Your task to perform on an android device: move a message to another label in the gmail app Image 0: 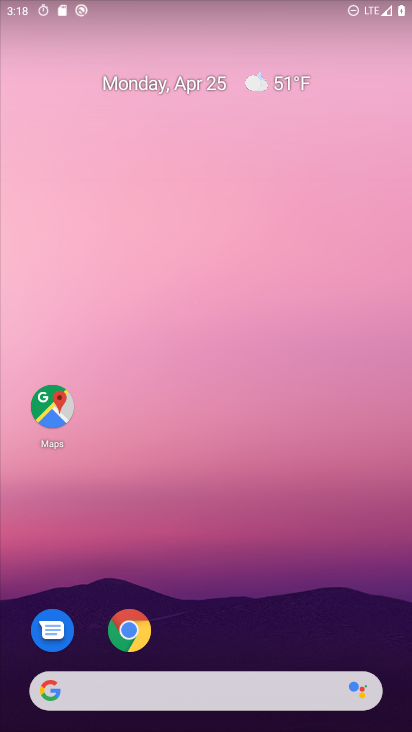
Step 0: drag from (165, 660) to (297, 181)
Your task to perform on an android device: move a message to another label in the gmail app Image 1: 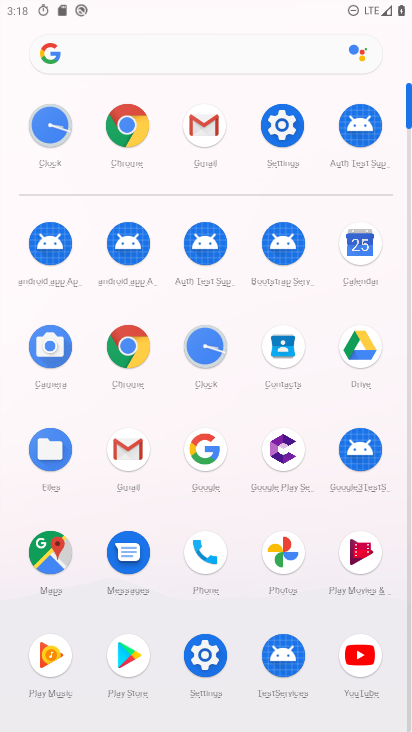
Step 1: click (122, 448)
Your task to perform on an android device: move a message to another label in the gmail app Image 2: 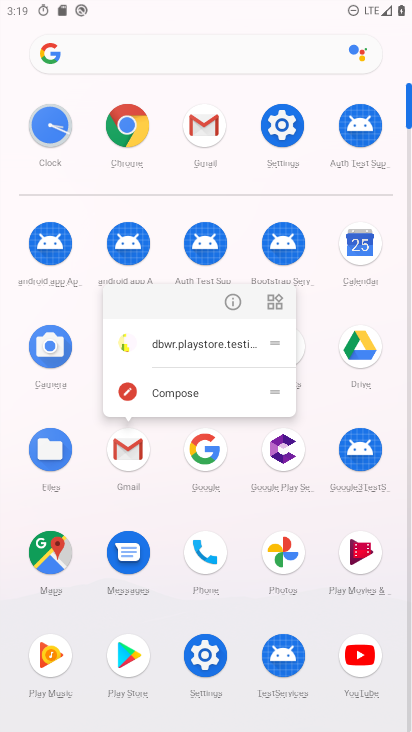
Step 2: click (228, 301)
Your task to perform on an android device: move a message to another label in the gmail app Image 3: 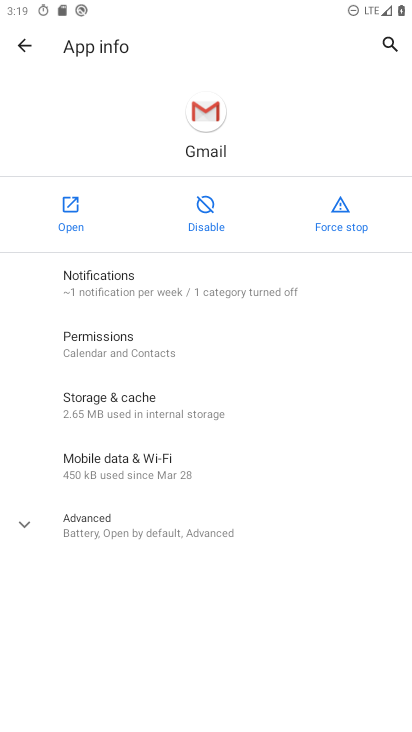
Step 3: click (67, 205)
Your task to perform on an android device: move a message to another label in the gmail app Image 4: 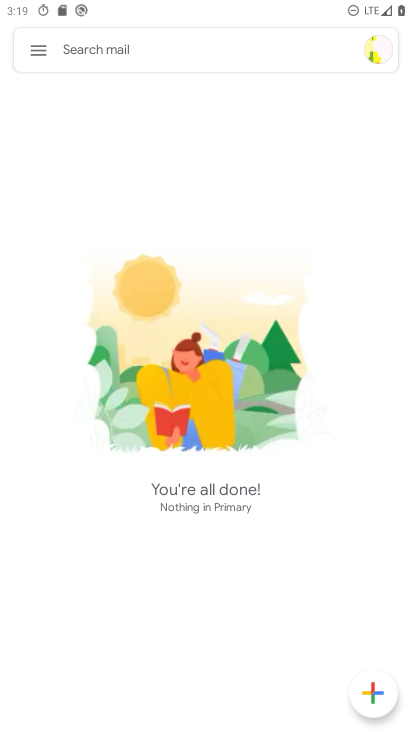
Step 4: drag from (219, 549) to (224, 285)
Your task to perform on an android device: move a message to another label in the gmail app Image 5: 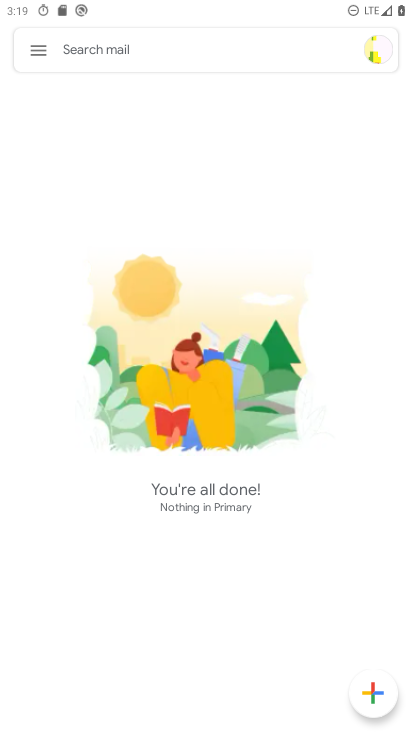
Step 5: drag from (194, 482) to (216, 260)
Your task to perform on an android device: move a message to another label in the gmail app Image 6: 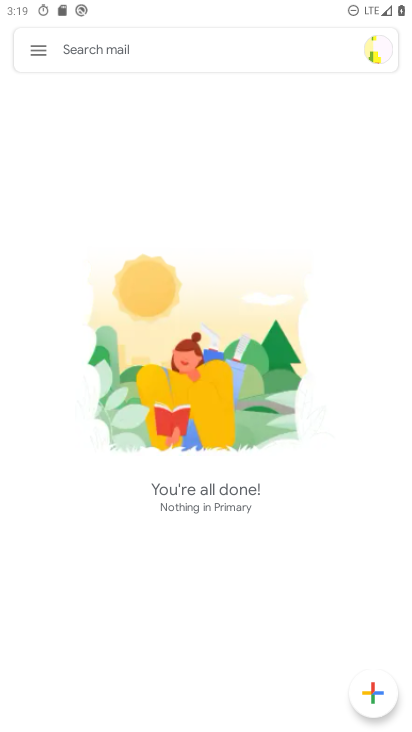
Step 6: click (36, 48)
Your task to perform on an android device: move a message to another label in the gmail app Image 7: 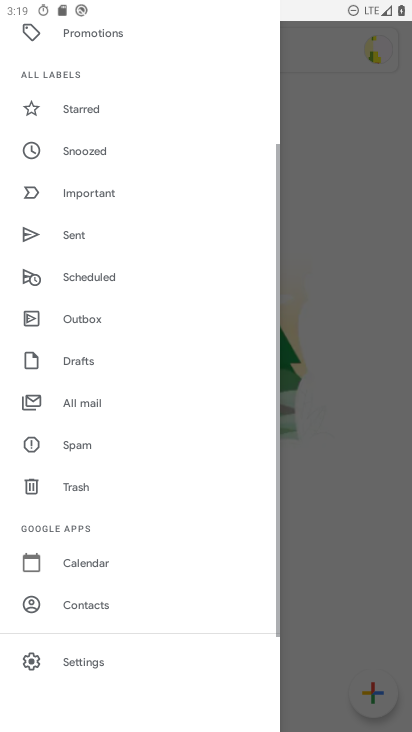
Step 7: drag from (153, 472) to (160, 265)
Your task to perform on an android device: move a message to another label in the gmail app Image 8: 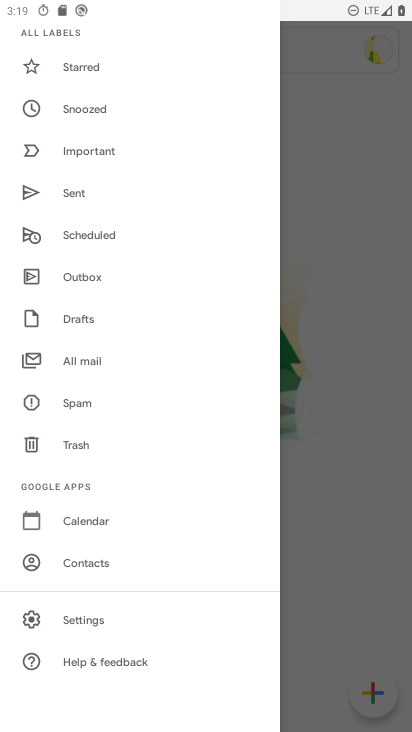
Step 8: drag from (138, 622) to (155, 279)
Your task to perform on an android device: move a message to another label in the gmail app Image 9: 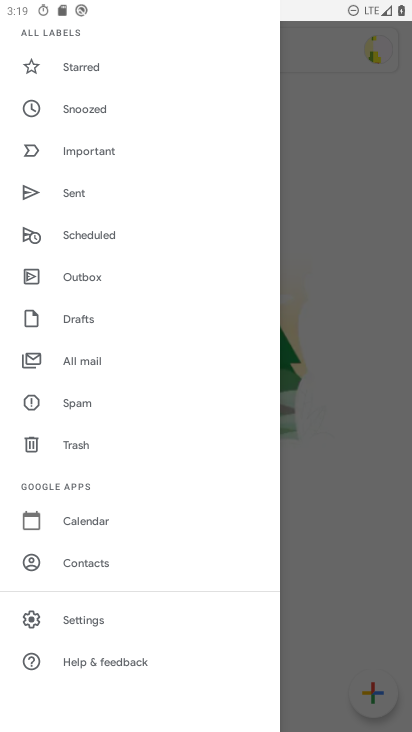
Step 9: drag from (140, 76) to (173, 540)
Your task to perform on an android device: move a message to another label in the gmail app Image 10: 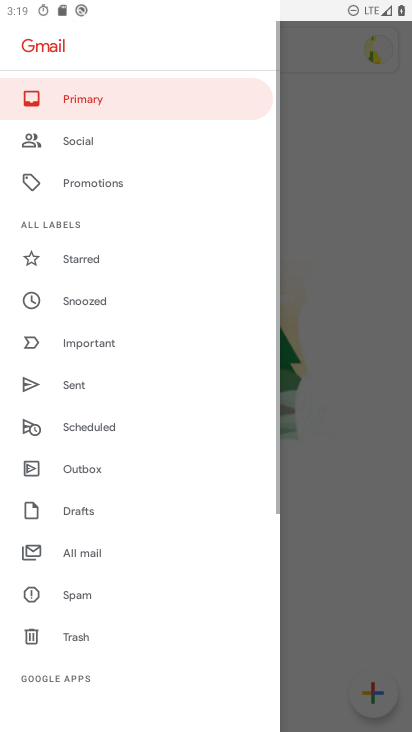
Step 10: click (100, 144)
Your task to perform on an android device: move a message to another label in the gmail app Image 11: 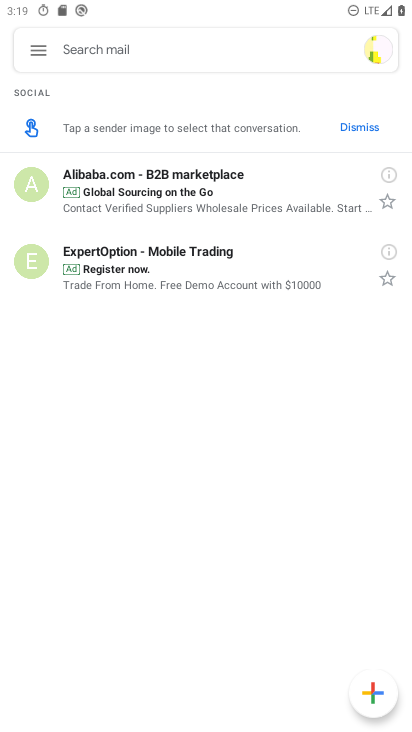
Step 11: click (34, 53)
Your task to perform on an android device: move a message to another label in the gmail app Image 12: 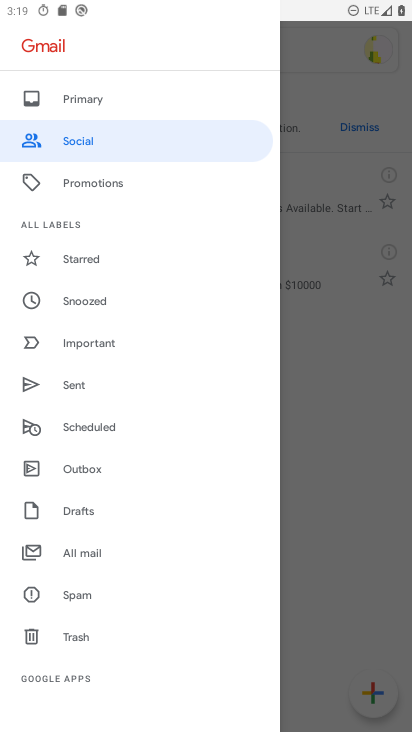
Step 12: click (92, 101)
Your task to perform on an android device: move a message to another label in the gmail app Image 13: 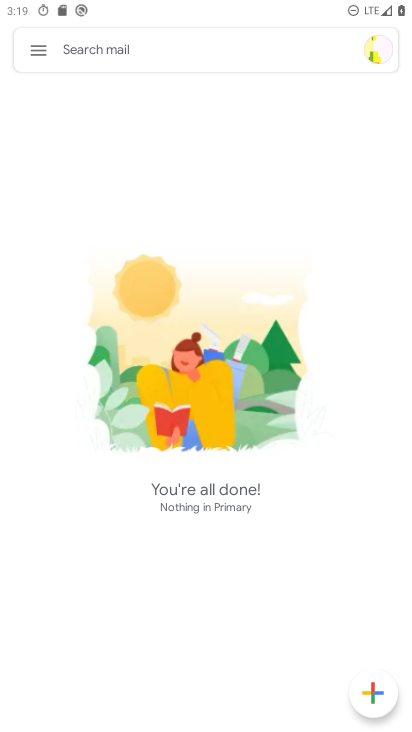
Step 13: task complete